Your task to perform on an android device: delete browsing data in the chrome app Image 0: 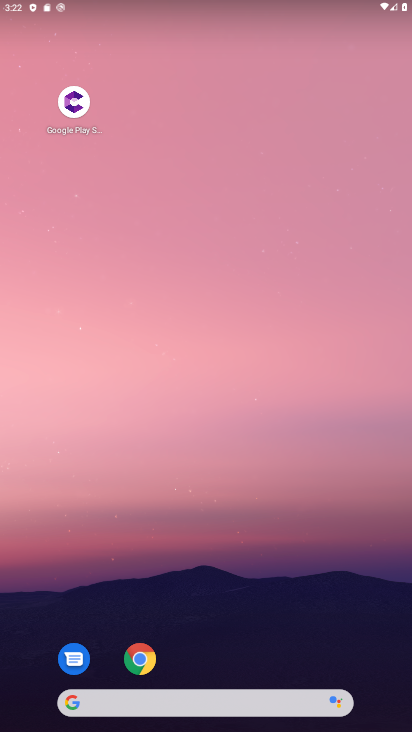
Step 0: click (137, 658)
Your task to perform on an android device: delete browsing data in the chrome app Image 1: 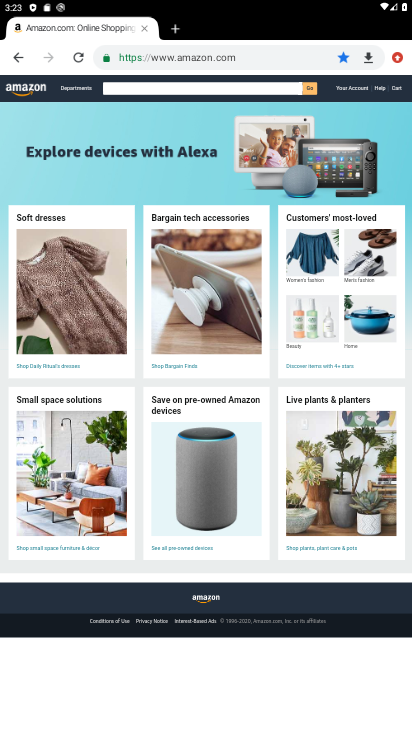
Step 1: click (399, 54)
Your task to perform on an android device: delete browsing data in the chrome app Image 2: 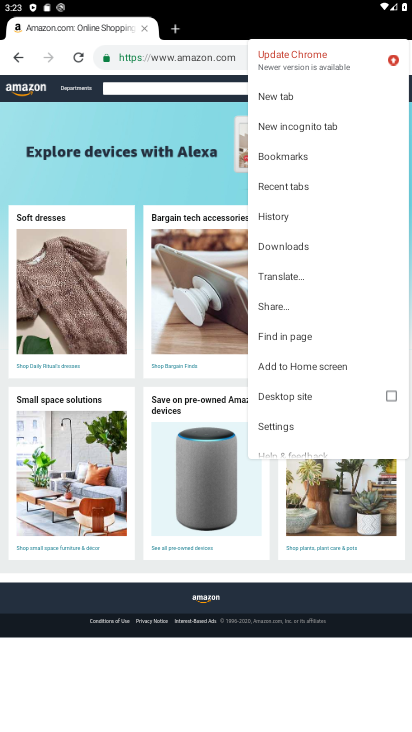
Step 2: click (277, 217)
Your task to perform on an android device: delete browsing data in the chrome app Image 3: 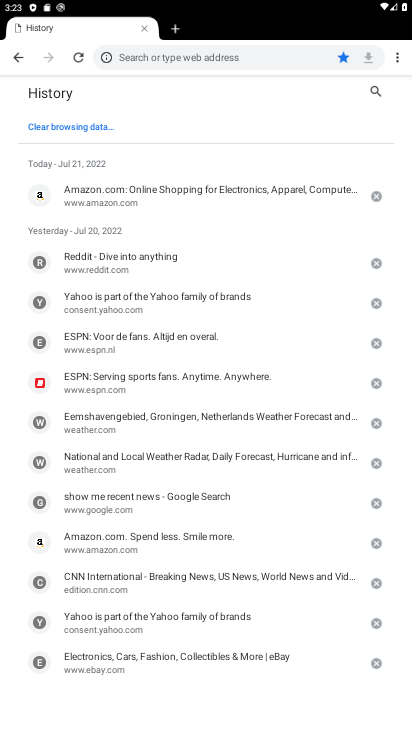
Step 3: click (79, 124)
Your task to perform on an android device: delete browsing data in the chrome app Image 4: 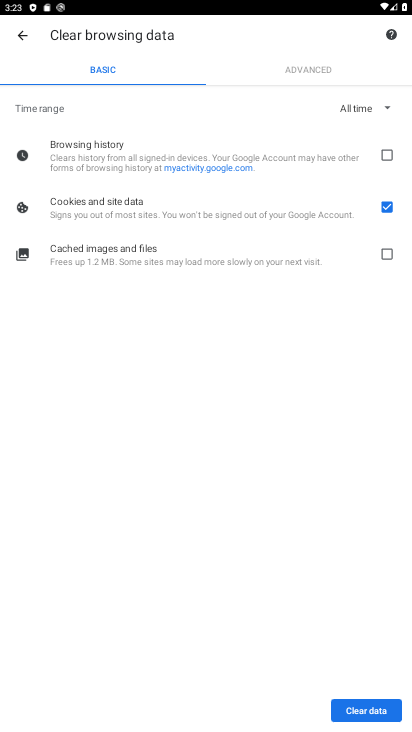
Step 4: click (386, 150)
Your task to perform on an android device: delete browsing data in the chrome app Image 5: 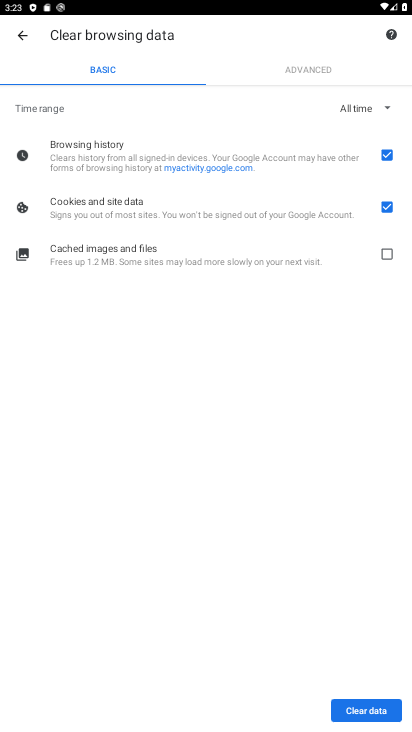
Step 5: click (386, 205)
Your task to perform on an android device: delete browsing data in the chrome app Image 6: 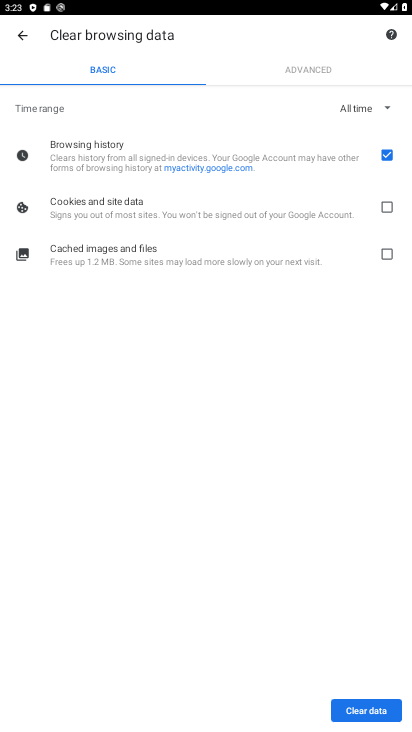
Step 6: click (362, 706)
Your task to perform on an android device: delete browsing data in the chrome app Image 7: 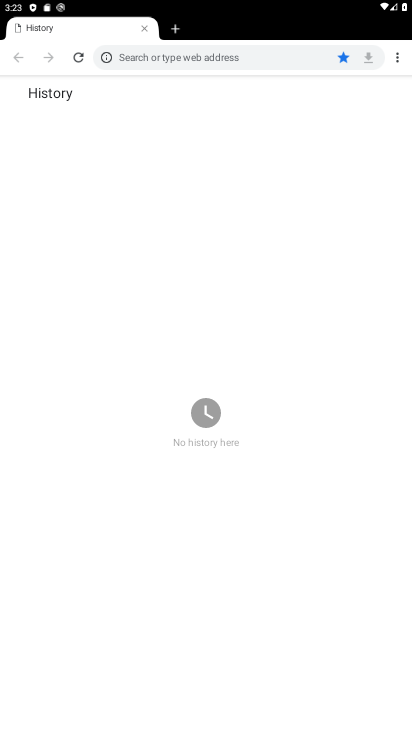
Step 7: task complete